Your task to perform on an android device: Is it going to rain this weekend? Image 0: 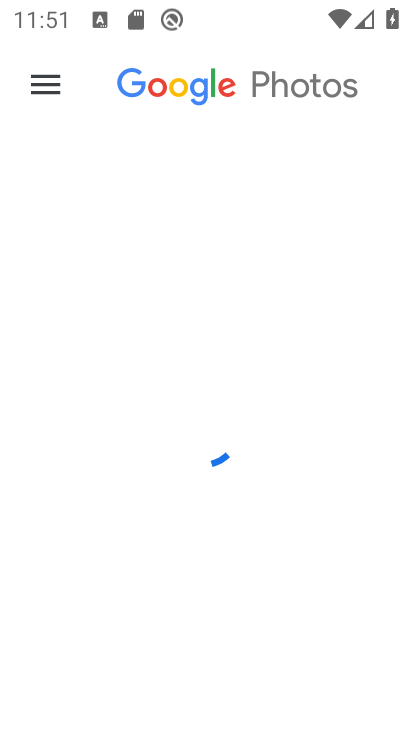
Step 0: press home button
Your task to perform on an android device: Is it going to rain this weekend? Image 1: 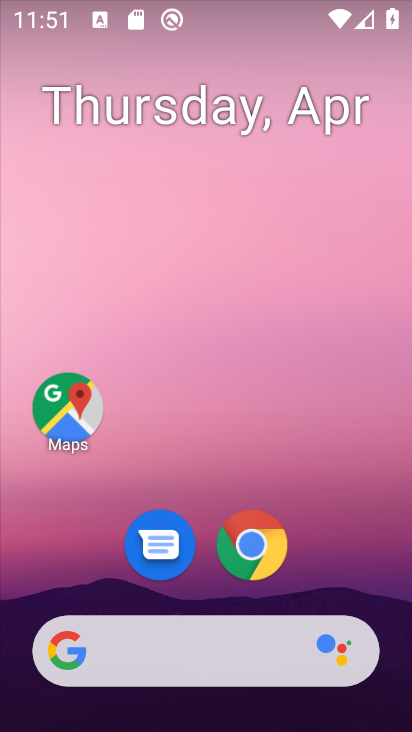
Step 1: drag from (305, 196) to (0, 217)
Your task to perform on an android device: Is it going to rain this weekend? Image 2: 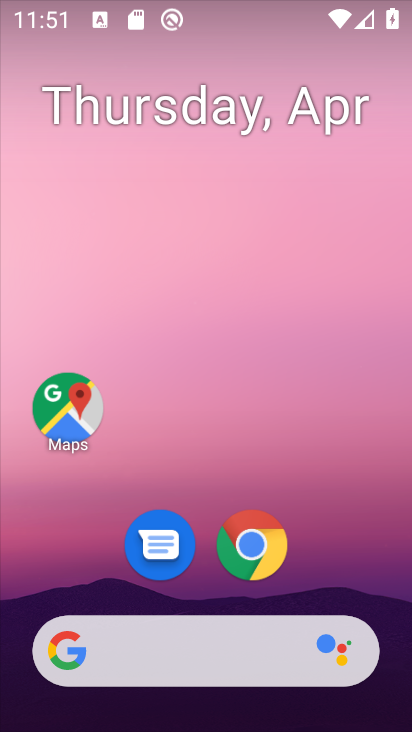
Step 2: drag from (330, 287) to (0, 307)
Your task to perform on an android device: Is it going to rain this weekend? Image 3: 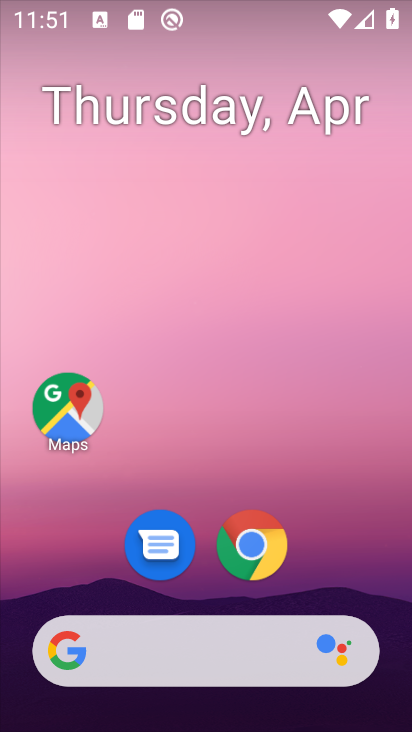
Step 3: drag from (36, 289) to (409, 303)
Your task to perform on an android device: Is it going to rain this weekend? Image 4: 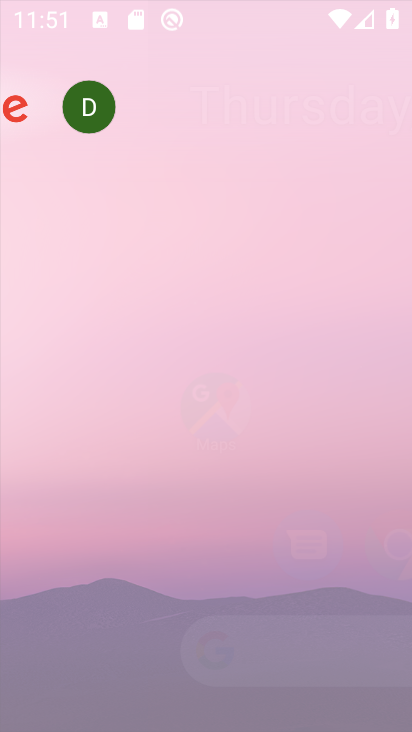
Step 4: drag from (50, 282) to (397, 270)
Your task to perform on an android device: Is it going to rain this weekend? Image 5: 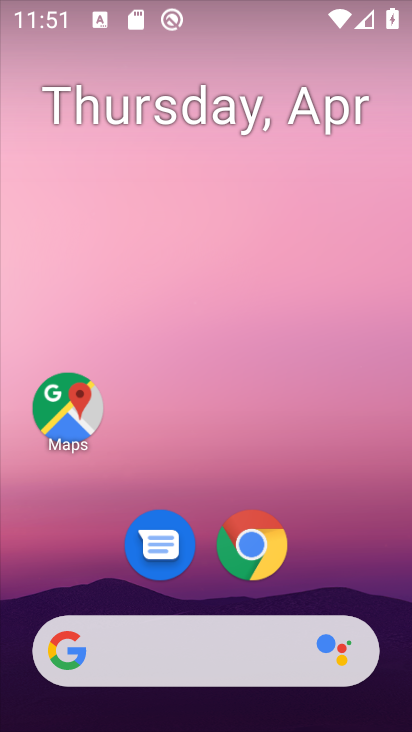
Step 5: drag from (47, 292) to (403, 381)
Your task to perform on an android device: Is it going to rain this weekend? Image 6: 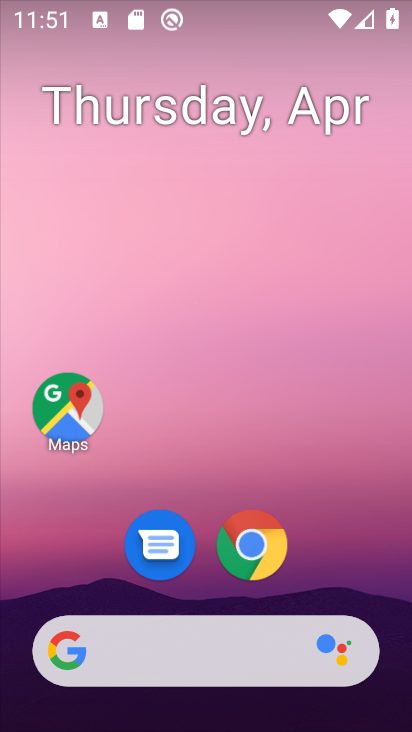
Step 6: drag from (202, 287) to (209, 129)
Your task to perform on an android device: Is it going to rain this weekend? Image 7: 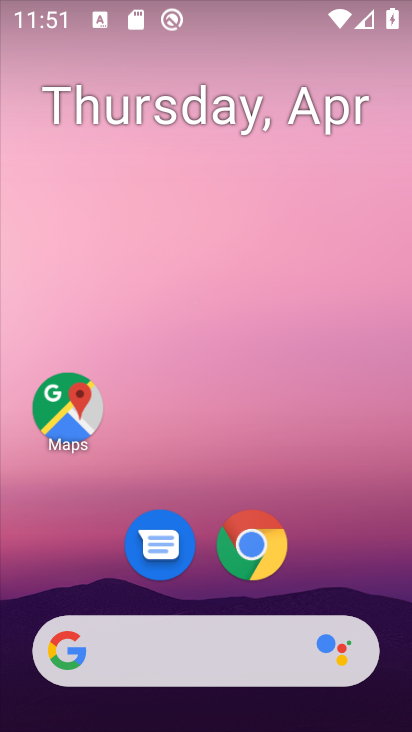
Step 7: click (180, 655)
Your task to perform on an android device: Is it going to rain this weekend? Image 8: 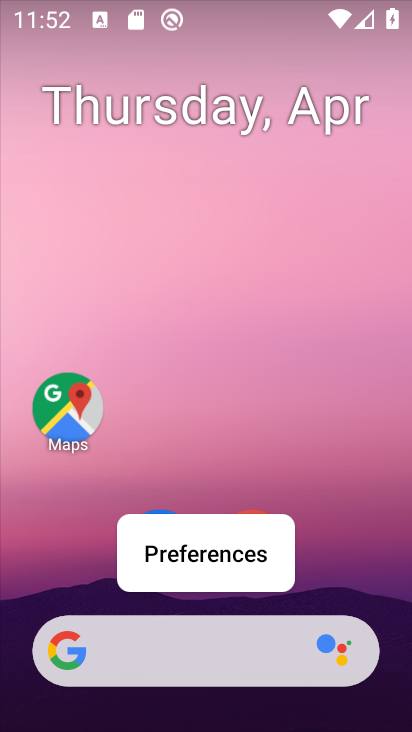
Step 8: click (135, 653)
Your task to perform on an android device: Is it going to rain this weekend? Image 9: 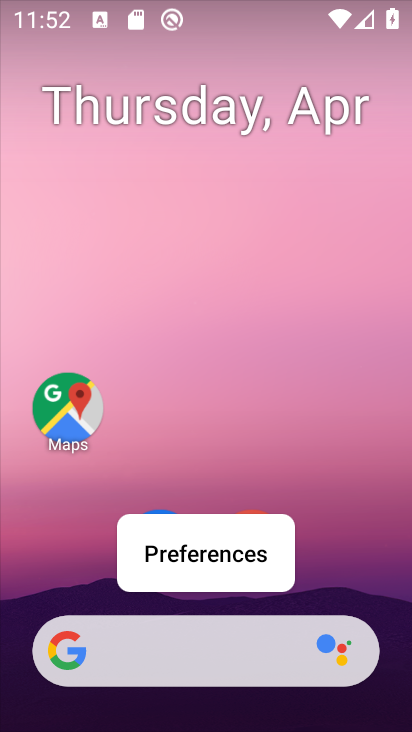
Step 9: click (175, 572)
Your task to perform on an android device: Is it going to rain this weekend? Image 10: 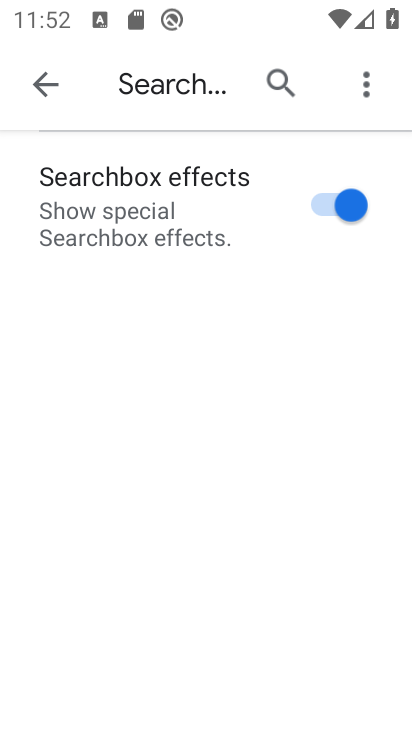
Step 10: click (54, 80)
Your task to perform on an android device: Is it going to rain this weekend? Image 11: 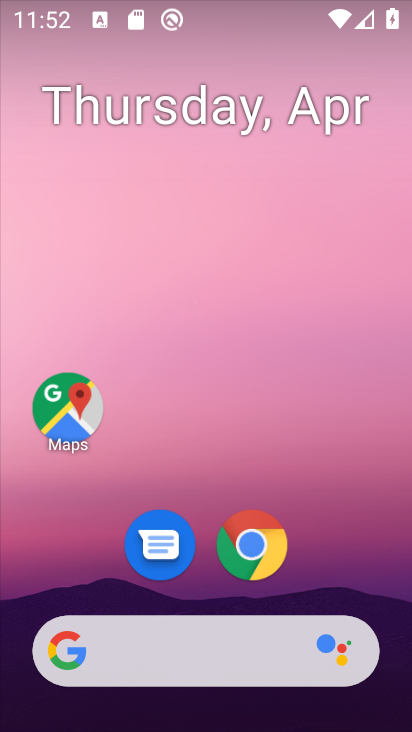
Step 11: click (152, 654)
Your task to perform on an android device: Is it going to rain this weekend? Image 12: 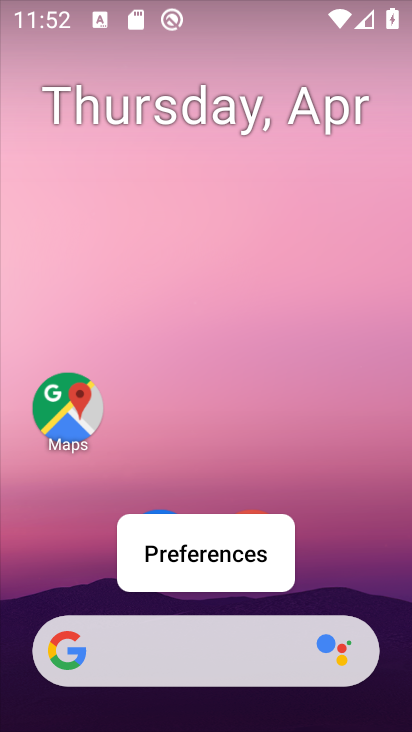
Step 12: click (319, 642)
Your task to perform on an android device: Is it going to rain this weekend? Image 13: 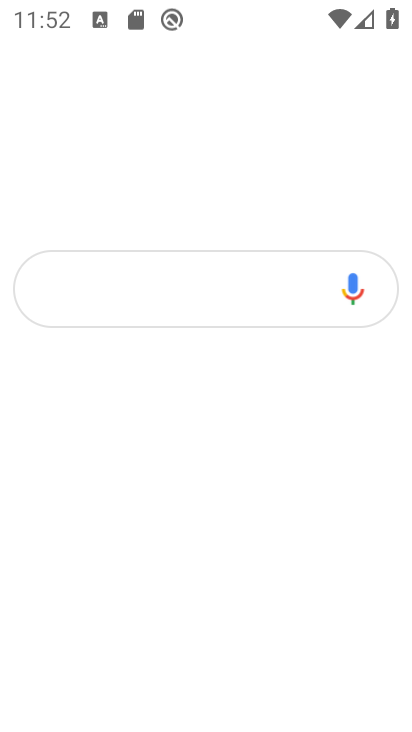
Step 13: click (334, 669)
Your task to perform on an android device: Is it going to rain this weekend? Image 14: 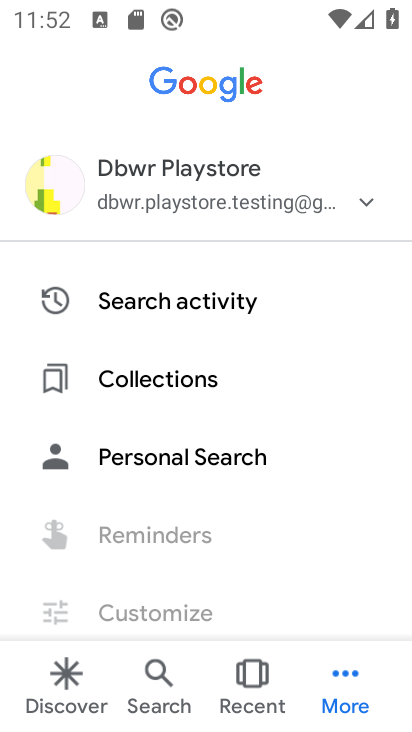
Step 14: click (148, 683)
Your task to perform on an android device: Is it going to rain this weekend? Image 15: 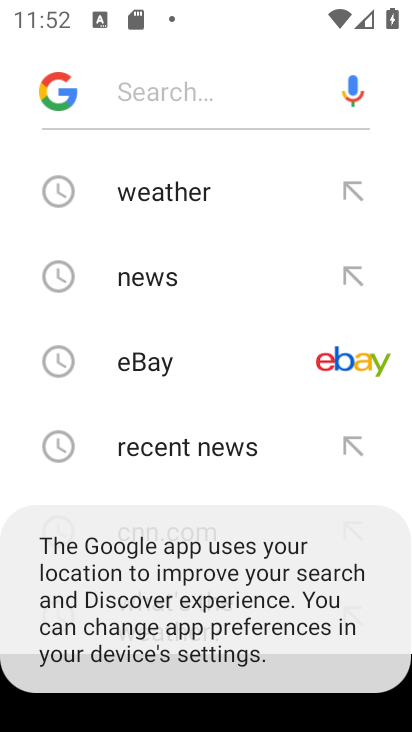
Step 15: click (170, 200)
Your task to perform on an android device: Is it going to rain this weekend? Image 16: 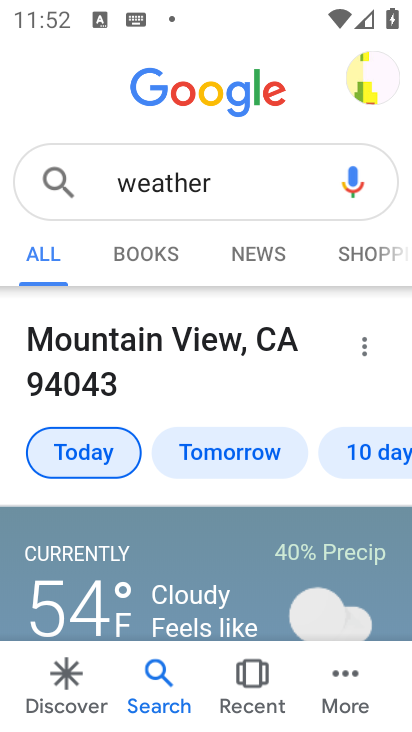
Step 16: click (372, 454)
Your task to perform on an android device: Is it going to rain this weekend? Image 17: 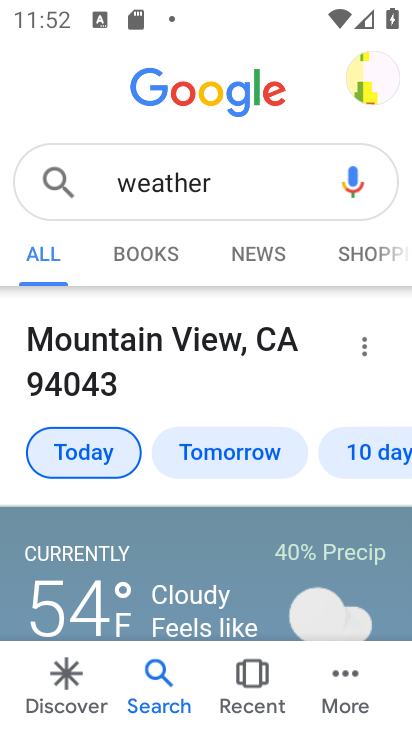
Step 17: click (360, 449)
Your task to perform on an android device: Is it going to rain this weekend? Image 18: 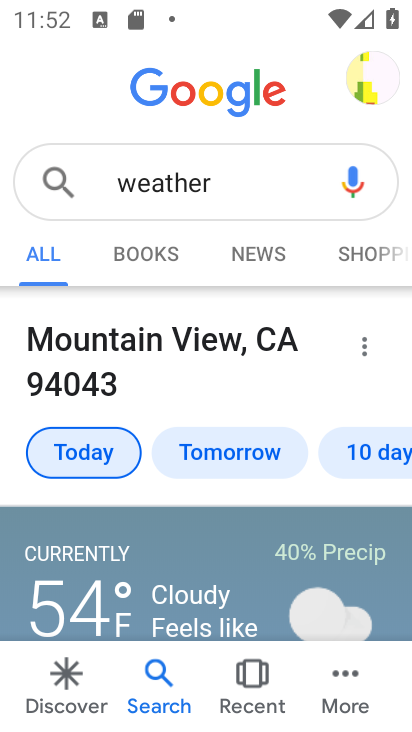
Step 18: drag from (197, 587) to (237, 268)
Your task to perform on an android device: Is it going to rain this weekend? Image 19: 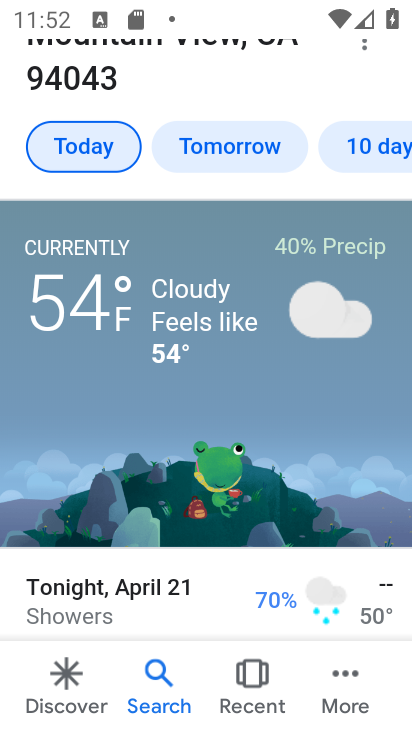
Step 19: click (377, 141)
Your task to perform on an android device: Is it going to rain this weekend? Image 20: 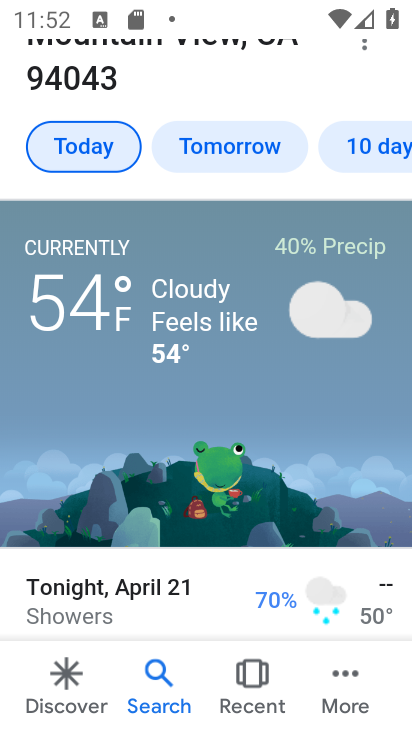
Step 20: task complete